Your task to perform on an android device: turn off smart reply in the gmail app Image 0: 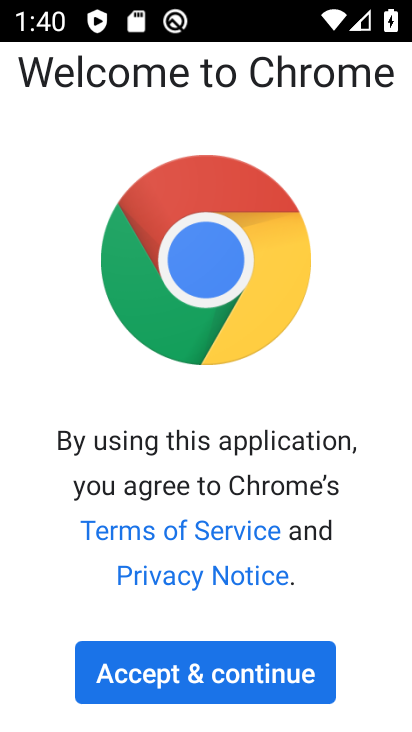
Step 0: press home button
Your task to perform on an android device: turn off smart reply in the gmail app Image 1: 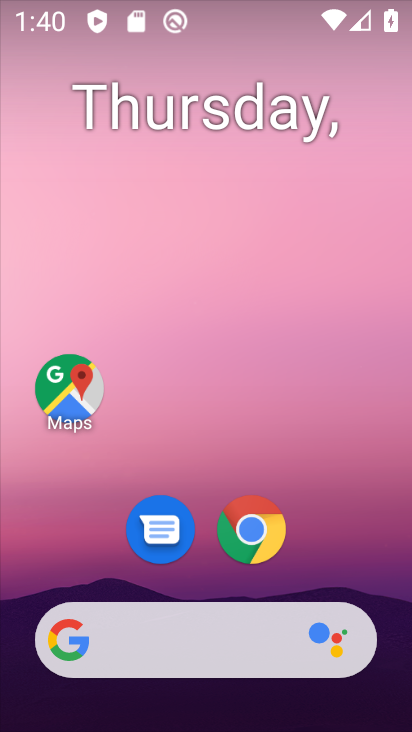
Step 1: drag from (76, 595) to (231, 87)
Your task to perform on an android device: turn off smart reply in the gmail app Image 2: 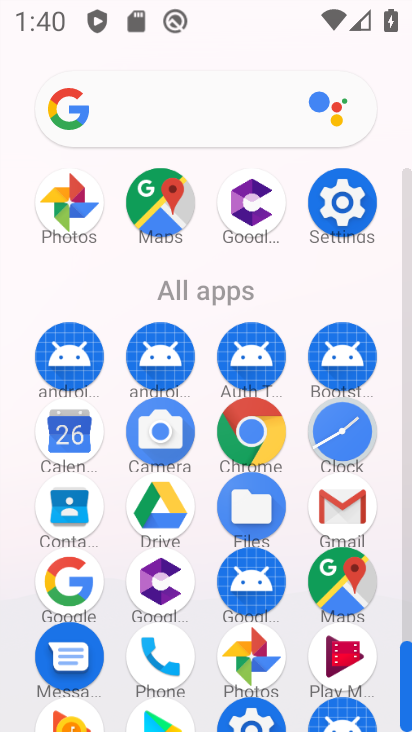
Step 2: click (364, 516)
Your task to perform on an android device: turn off smart reply in the gmail app Image 3: 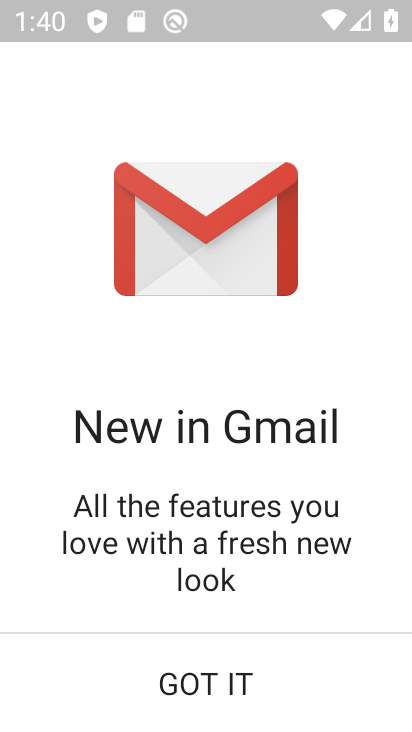
Step 3: click (189, 698)
Your task to perform on an android device: turn off smart reply in the gmail app Image 4: 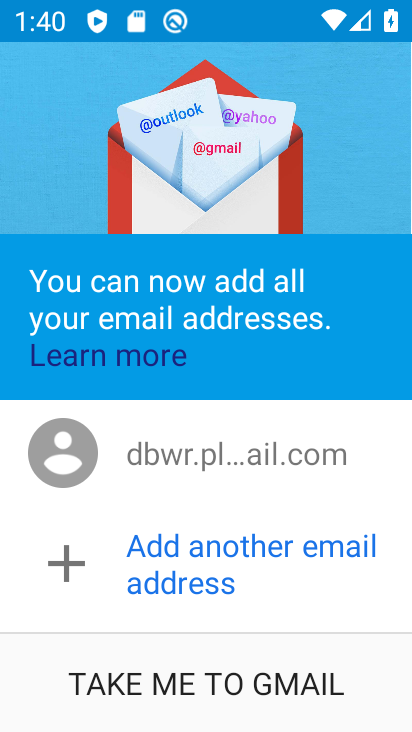
Step 4: click (276, 700)
Your task to perform on an android device: turn off smart reply in the gmail app Image 5: 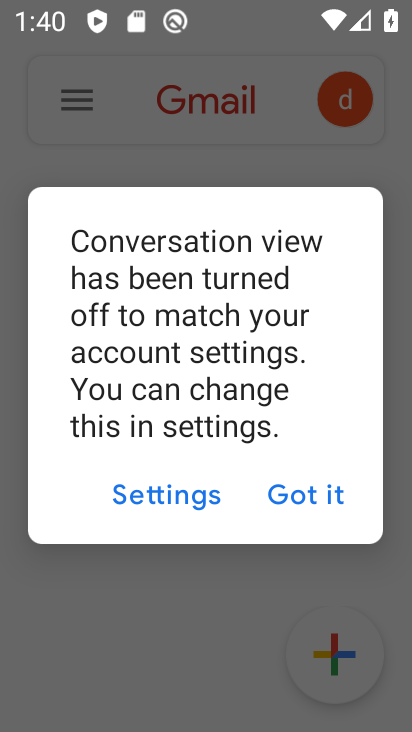
Step 5: click (341, 514)
Your task to perform on an android device: turn off smart reply in the gmail app Image 6: 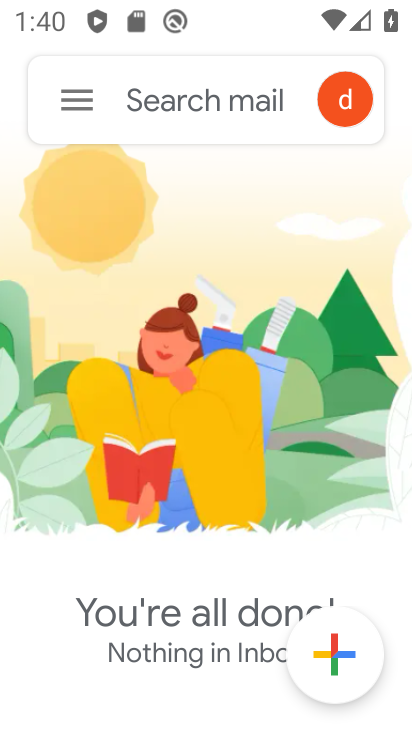
Step 6: click (80, 86)
Your task to perform on an android device: turn off smart reply in the gmail app Image 7: 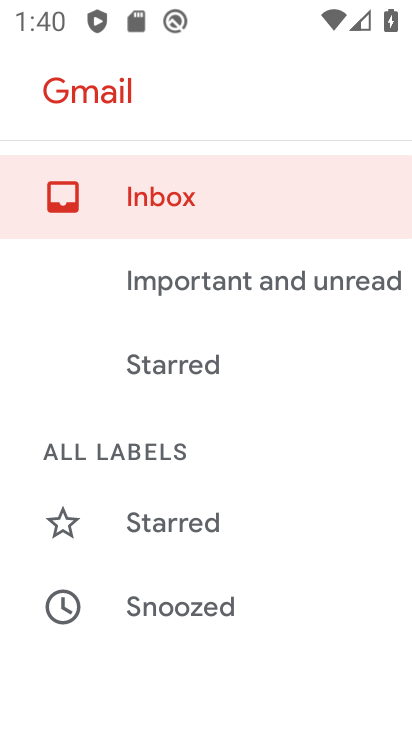
Step 7: drag from (187, 615) to (345, 81)
Your task to perform on an android device: turn off smart reply in the gmail app Image 8: 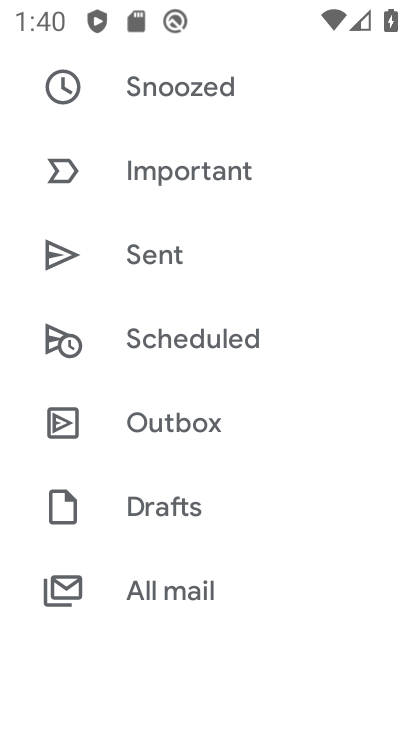
Step 8: drag from (224, 612) to (400, 150)
Your task to perform on an android device: turn off smart reply in the gmail app Image 9: 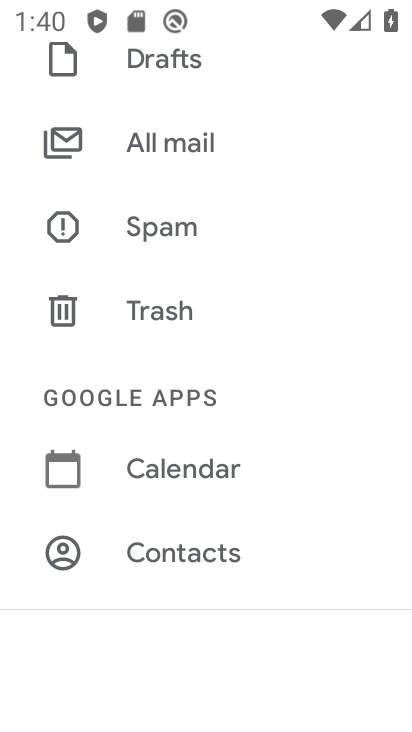
Step 9: drag from (216, 628) to (365, 167)
Your task to perform on an android device: turn off smart reply in the gmail app Image 10: 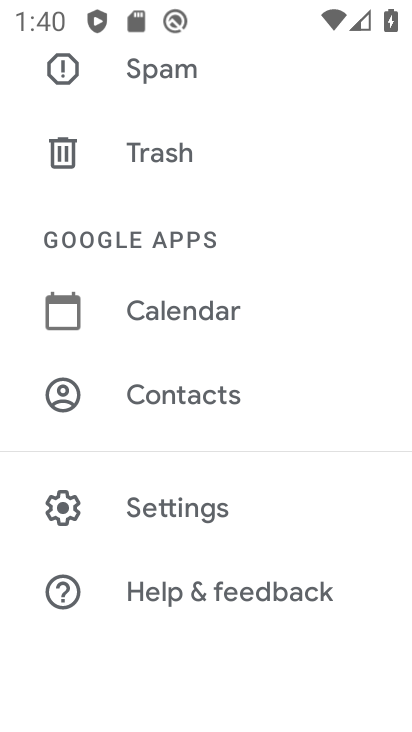
Step 10: click (195, 508)
Your task to perform on an android device: turn off smart reply in the gmail app Image 11: 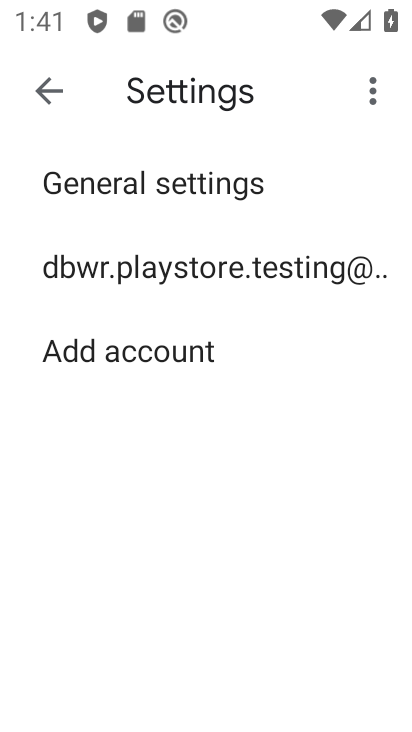
Step 11: click (272, 285)
Your task to perform on an android device: turn off smart reply in the gmail app Image 12: 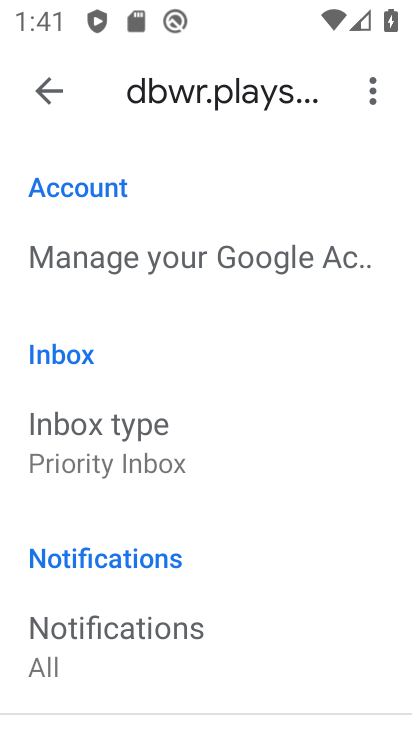
Step 12: drag from (215, 651) to (393, 145)
Your task to perform on an android device: turn off smart reply in the gmail app Image 13: 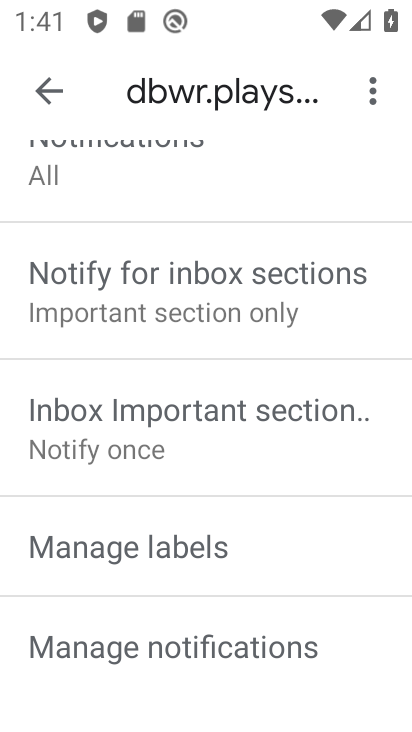
Step 13: drag from (195, 682) to (391, 173)
Your task to perform on an android device: turn off smart reply in the gmail app Image 14: 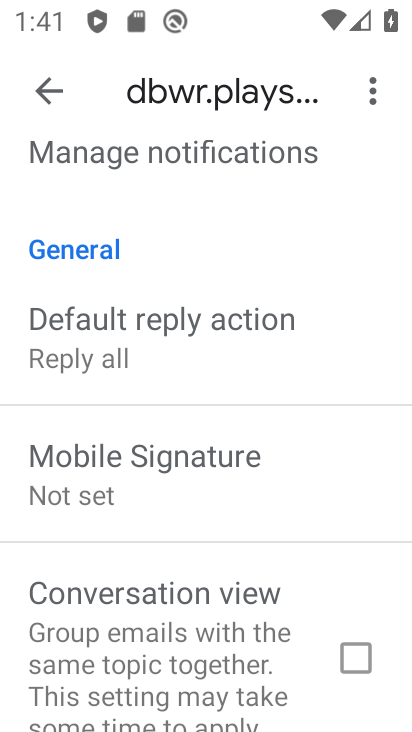
Step 14: drag from (178, 703) to (378, 167)
Your task to perform on an android device: turn off smart reply in the gmail app Image 15: 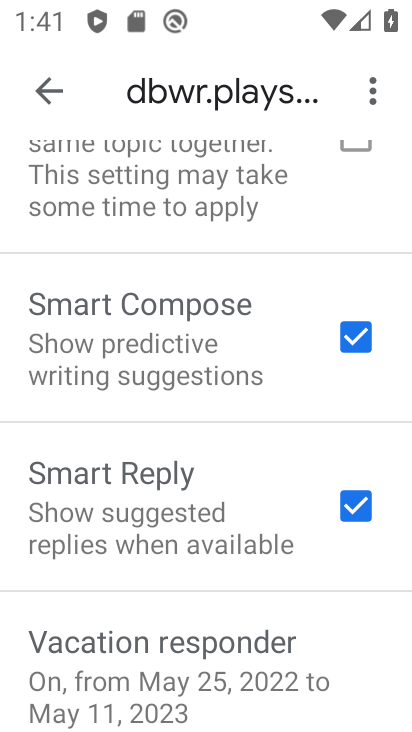
Step 15: click (355, 518)
Your task to perform on an android device: turn off smart reply in the gmail app Image 16: 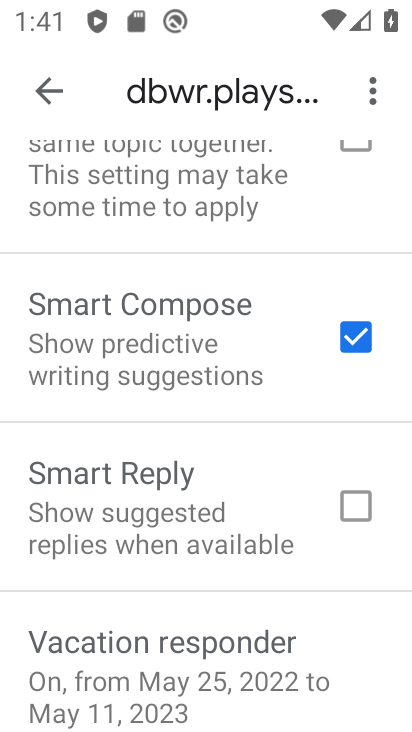
Step 16: task complete